Your task to perform on an android device: Go to Amazon Image 0: 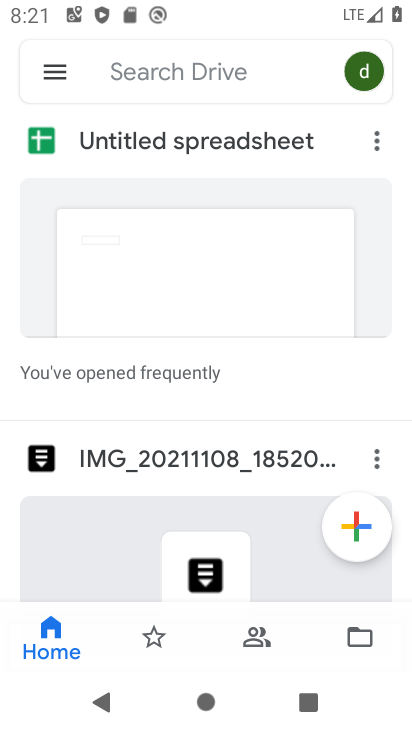
Step 0: press back button
Your task to perform on an android device: Go to Amazon Image 1: 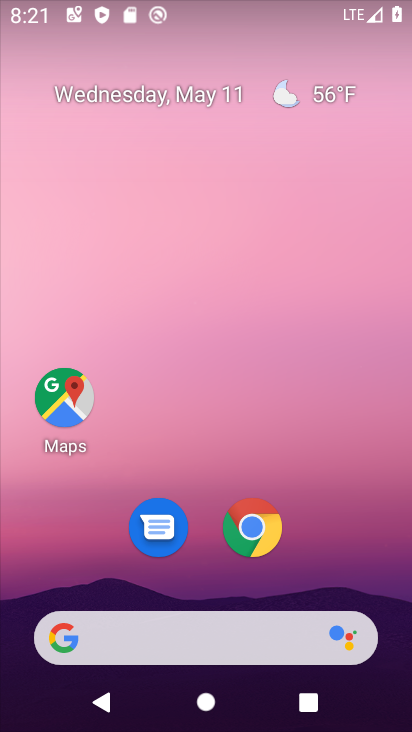
Step 1: click (260, 549)
Your task to perform on an android device: Go to Amazon Image 2: 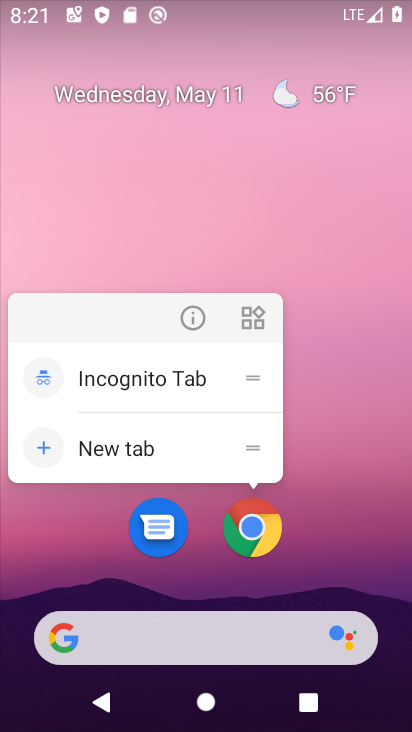
Step 2: click (255, 523)
Your task to perform on an android device: Go to Amazon Image 3: 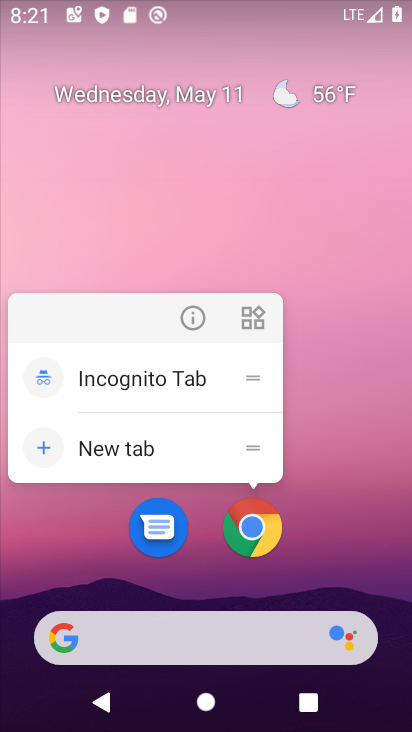
Step 3: click (248, 527)
Your task to perform on an android device: Go to Amazon Image 4: 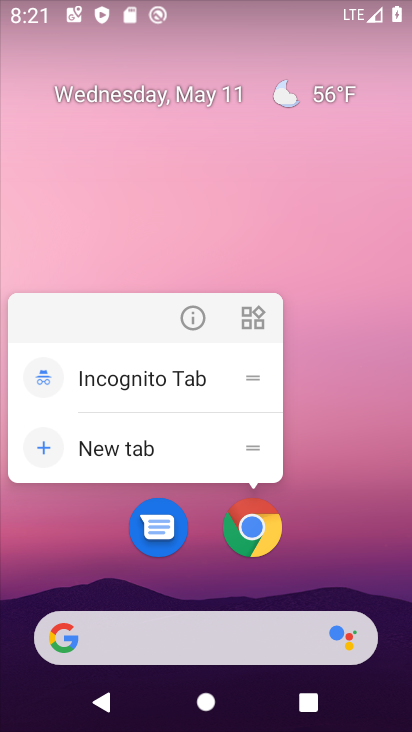
Step 4: click (250, 540)
Your task to perform on an android device: Go to Amazon Image 5: 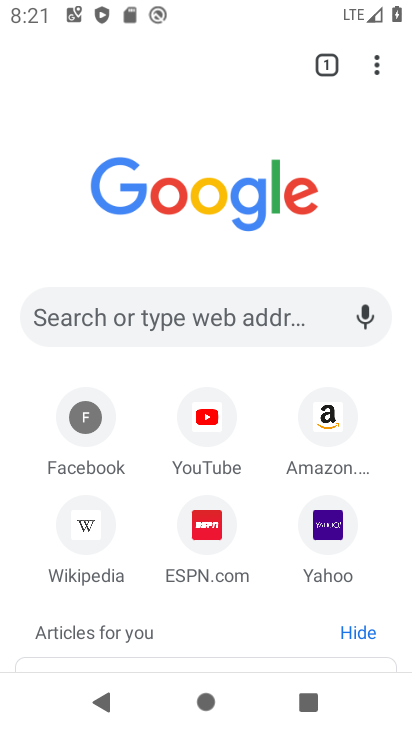
Step 5: click (331, 427)
Your task to perform on an android device: Go to Amazon Image 6: 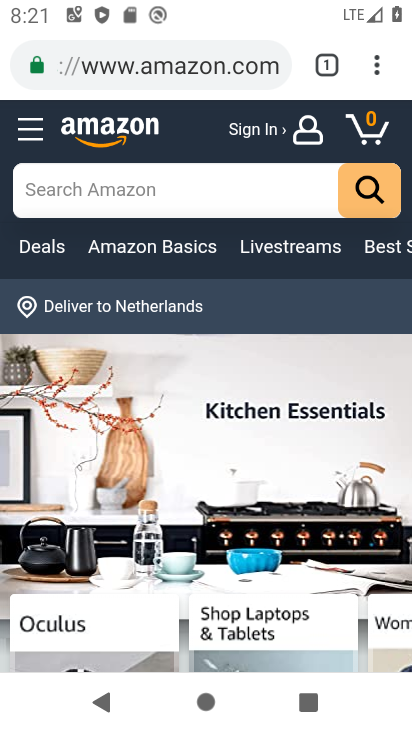
Step 6: task complete